Your task to perform on an android device: change the clock style Image 0: 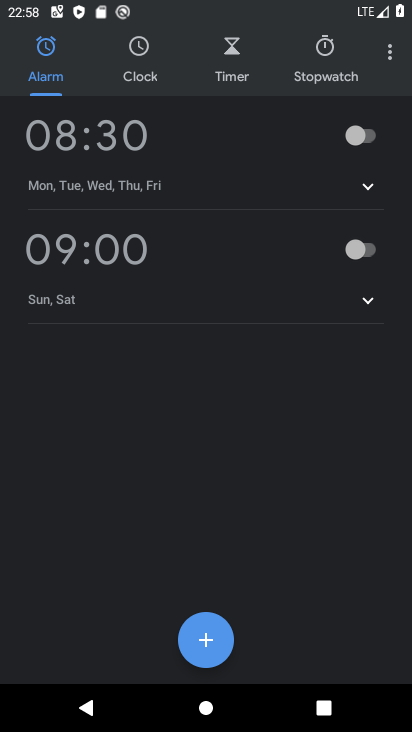
Step 0: drag from (384, 52) to (326, 104)
Your task to perform on an android device: change the clock style Image 1: 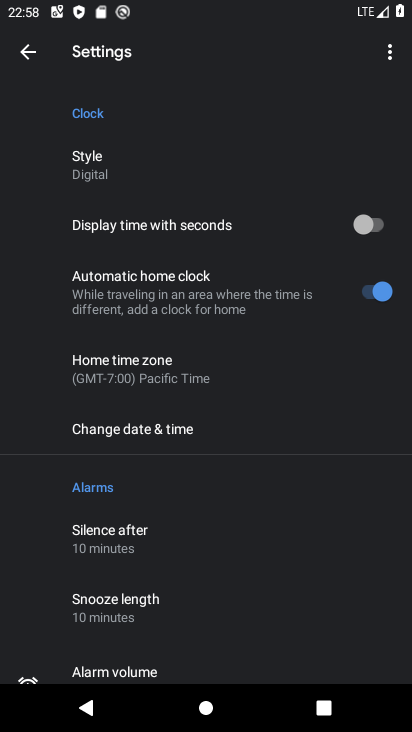
Step 1: drag from (171, 239) to (169, 547)
Your task to perform on an android device: change the clock style Image 2: 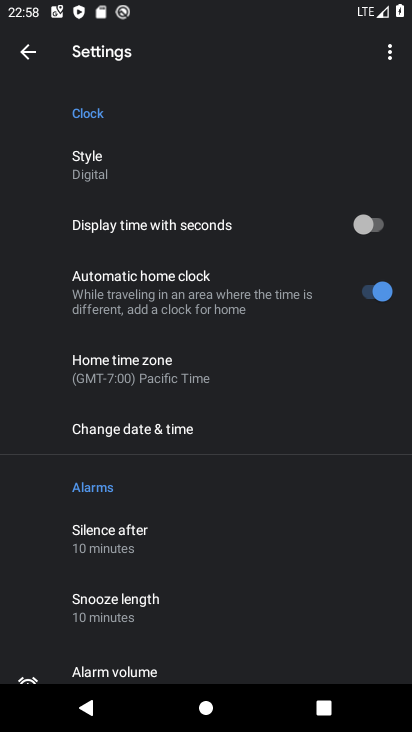
Step 2: click (115, 175)
Your task to perform on an android device: change the clock style Image 3: 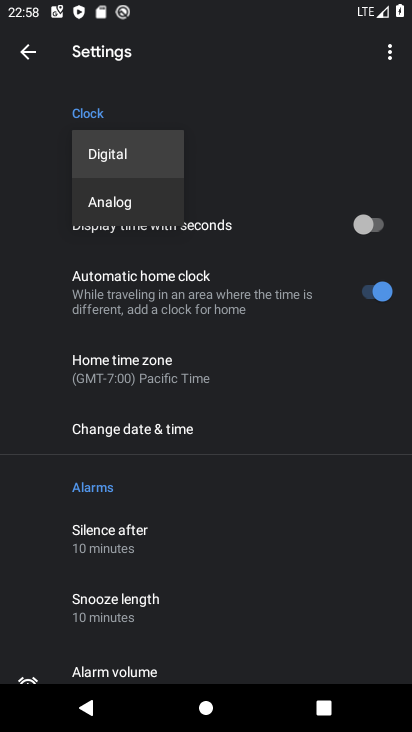
Step 3: click (134, 190)
Your task to perform on an android device: change the clock style Image 4: 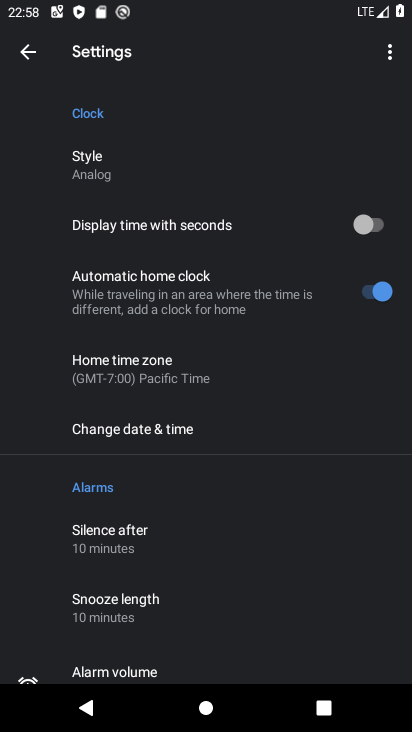
Step 4: task complete